Your task to perform on an android device: check google app version Image 0: 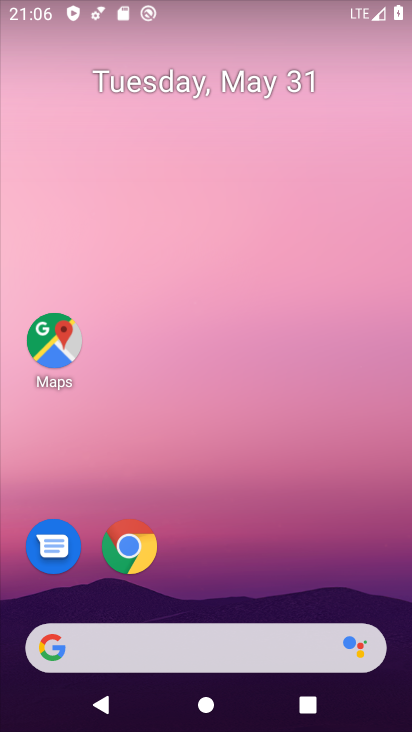
Step 0: drag from (387, 655) to (360, 168)
Your task to perform on an android device: check google app version Image 1: 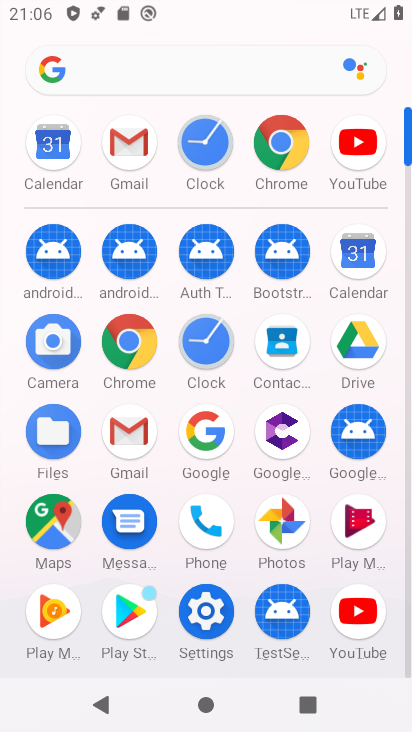
Step 1: click (195, 444)
Your task to perform on an android device: check google app version Image 2: 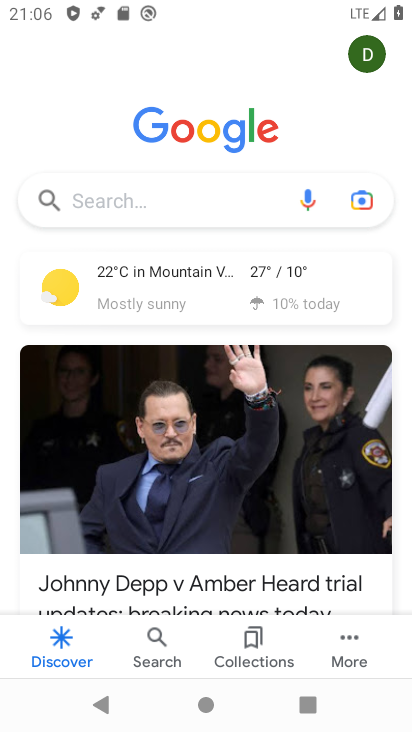
Step 2: click (353, 656)
Your task to perform on an android device: check google app version Image 3: 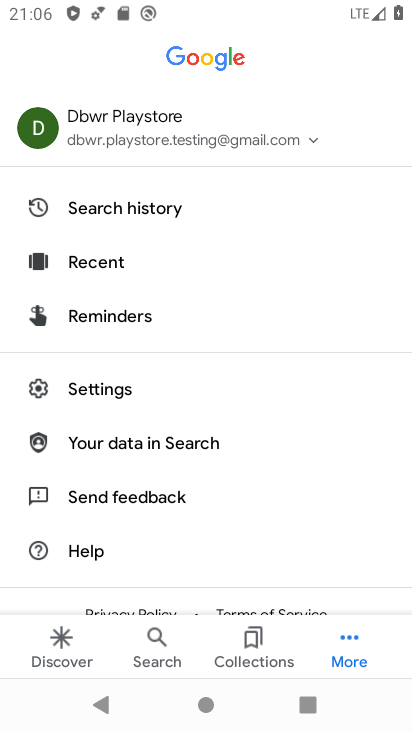
Step 3: click (95, 386)
Your task to perform on an android device: check google app version Image 4: 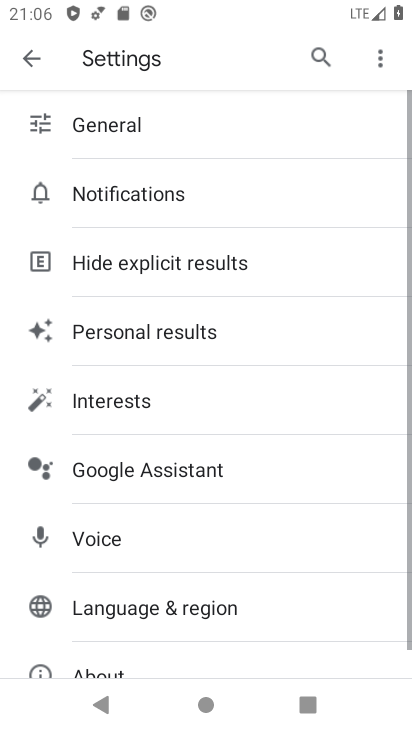
Step 4: drag from (287, 634) to (302, 409)
Your task to perform on an android device: check google app version Image 5: 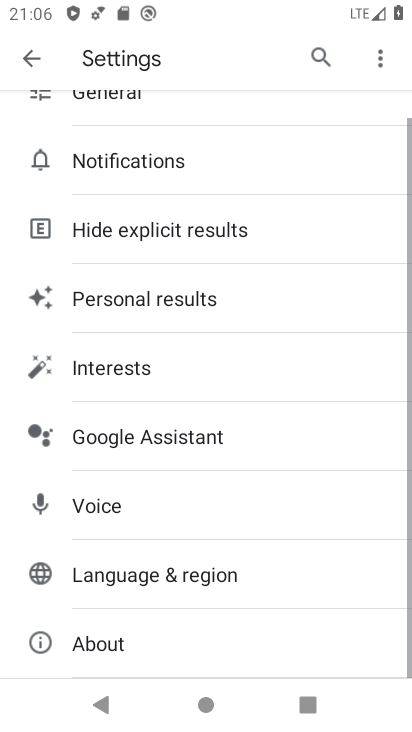
Step 5: click (106, 641)
Your task to perform on an android device: check google app version Image 6: 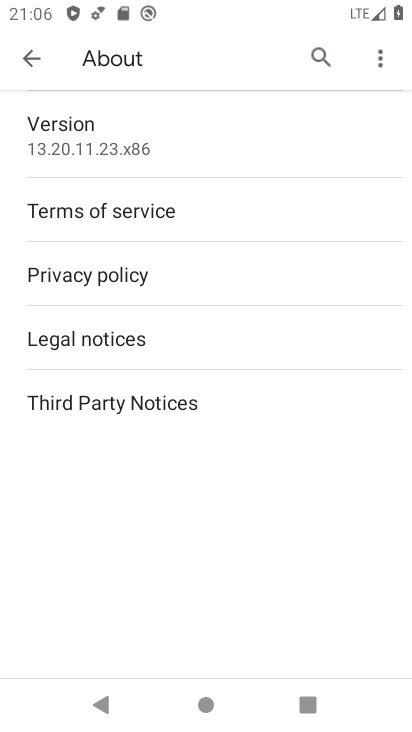
Step 6: click (90, 143)
Your task to perform on an android device: check google app version Image 7: 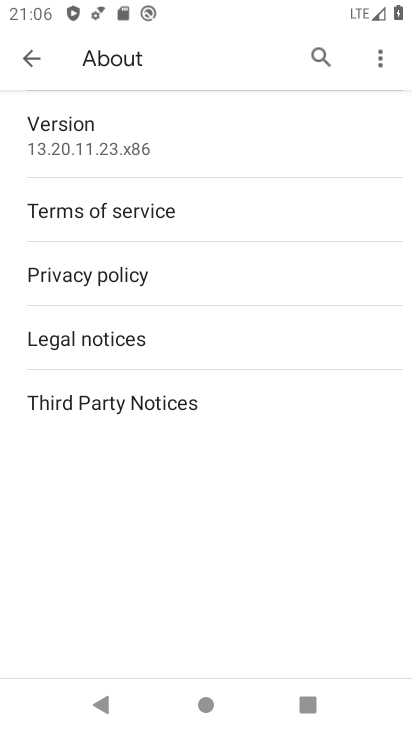
Step 7: task complete